Your task to perform on an android device: uninstall "LinkedIn" Image 0: 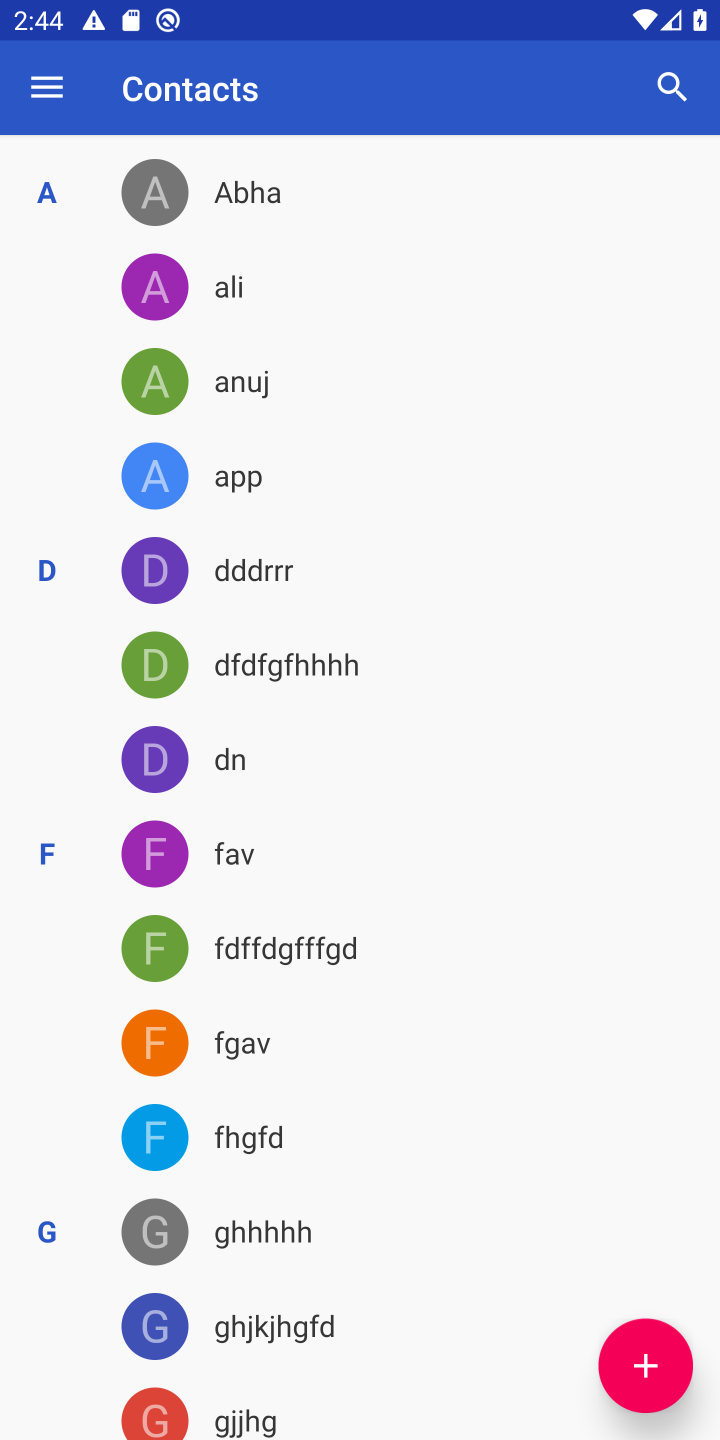
Step 0: press home button
Your task to perform on an android device: uninstall "LinkedIn" Image 1: 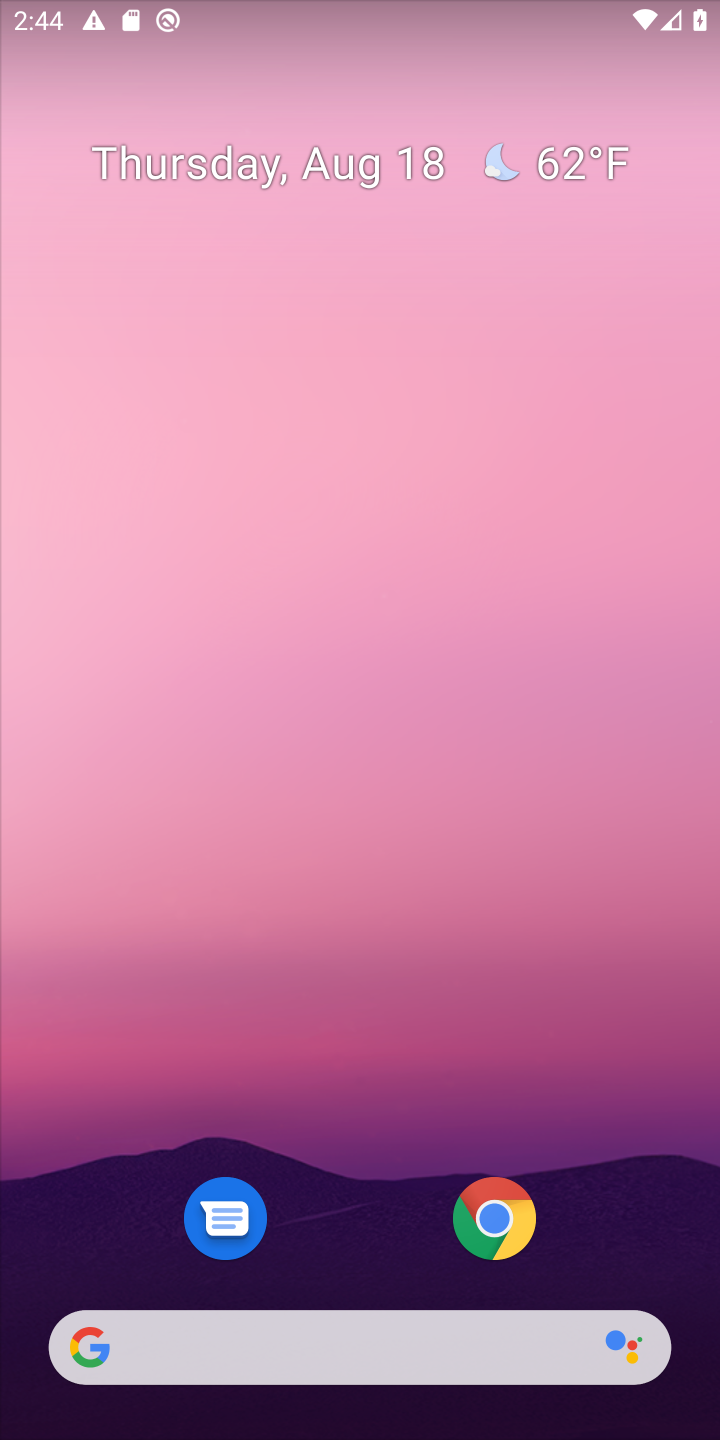
Step 1: drag from (334, 1209) to (356, 487)
Your task to perform on an android device: uninstall "LinkedIn" Image 2: 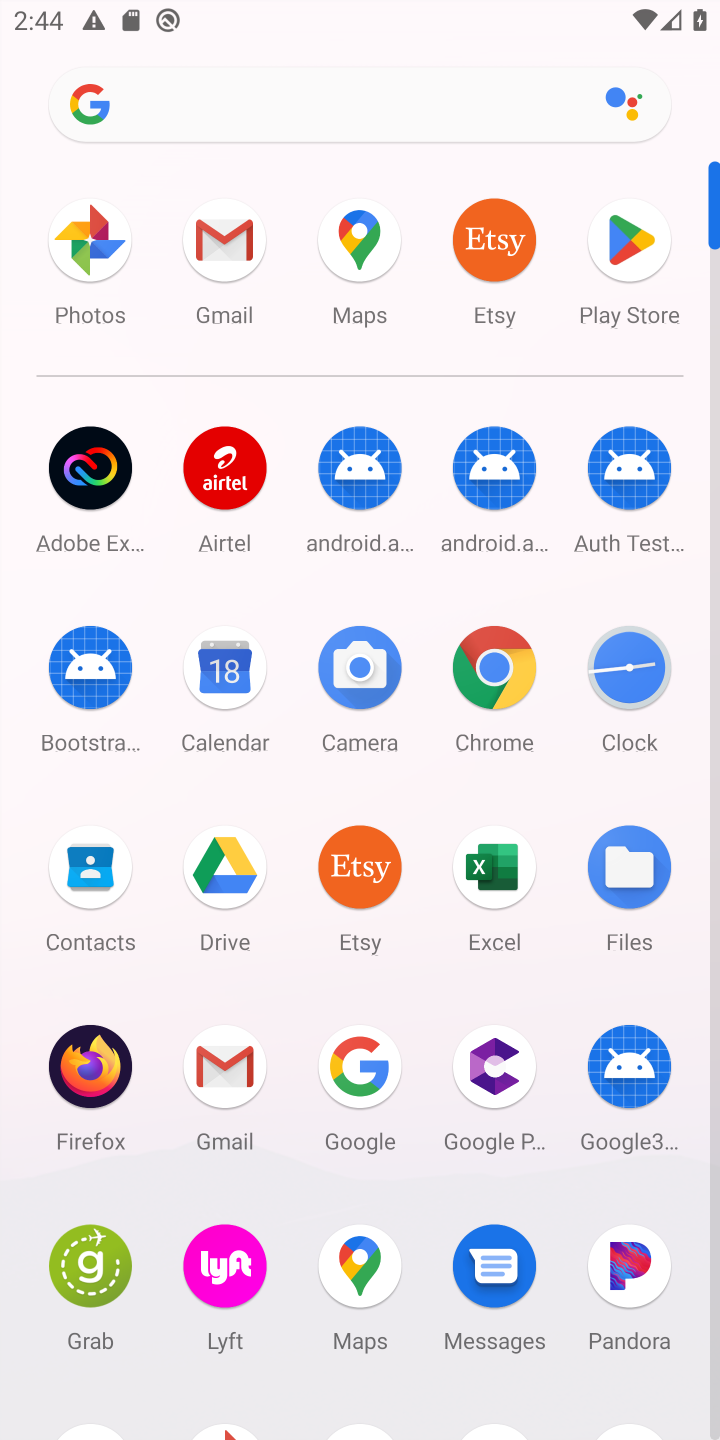
Step 2: click (611, 245)
Your task to perform on an android device: uninstall "LinkedIn" Image 3: 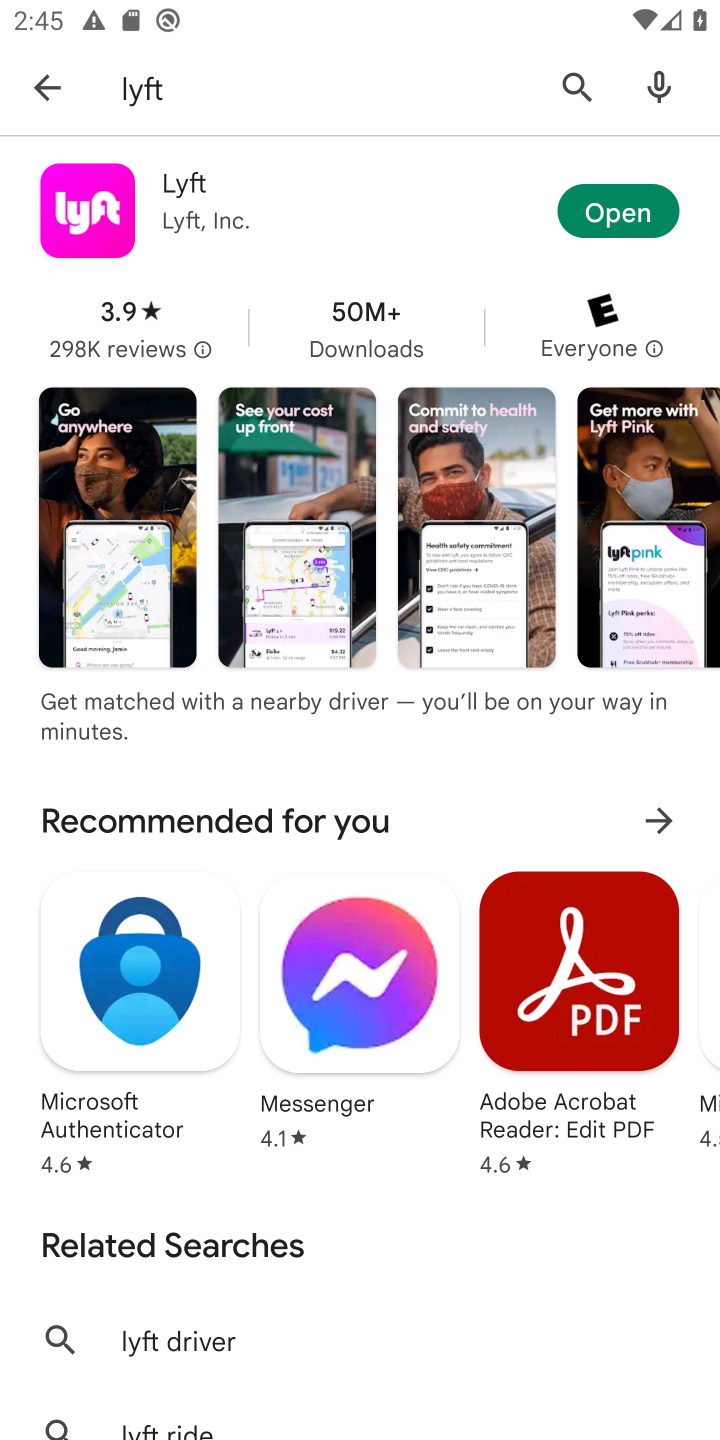
Step 3: click (567, 95)
Your task to perform on an android device: uninstall "LinkedIn" Image 4: 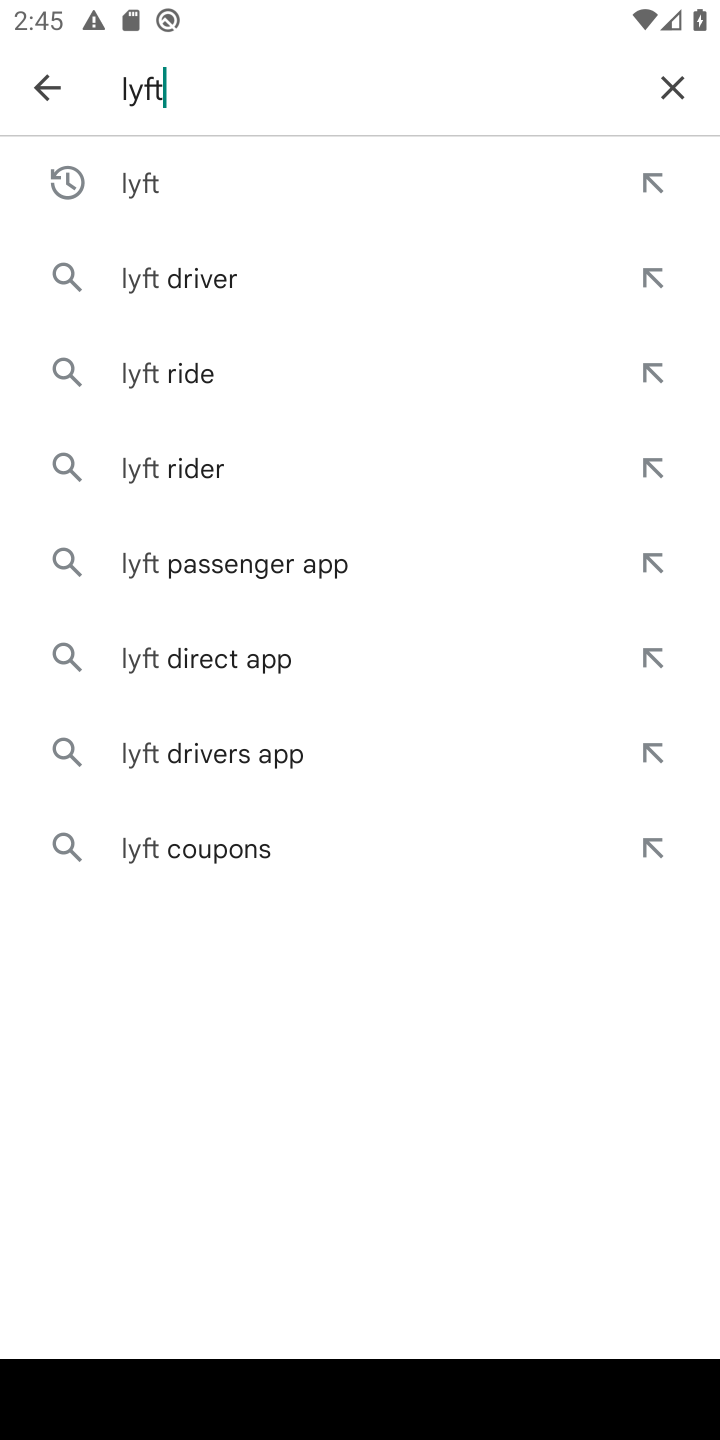
Step 4: click (662, 81)
Your task to perform on an android device: uninstall "LinkedIn" Image 5: 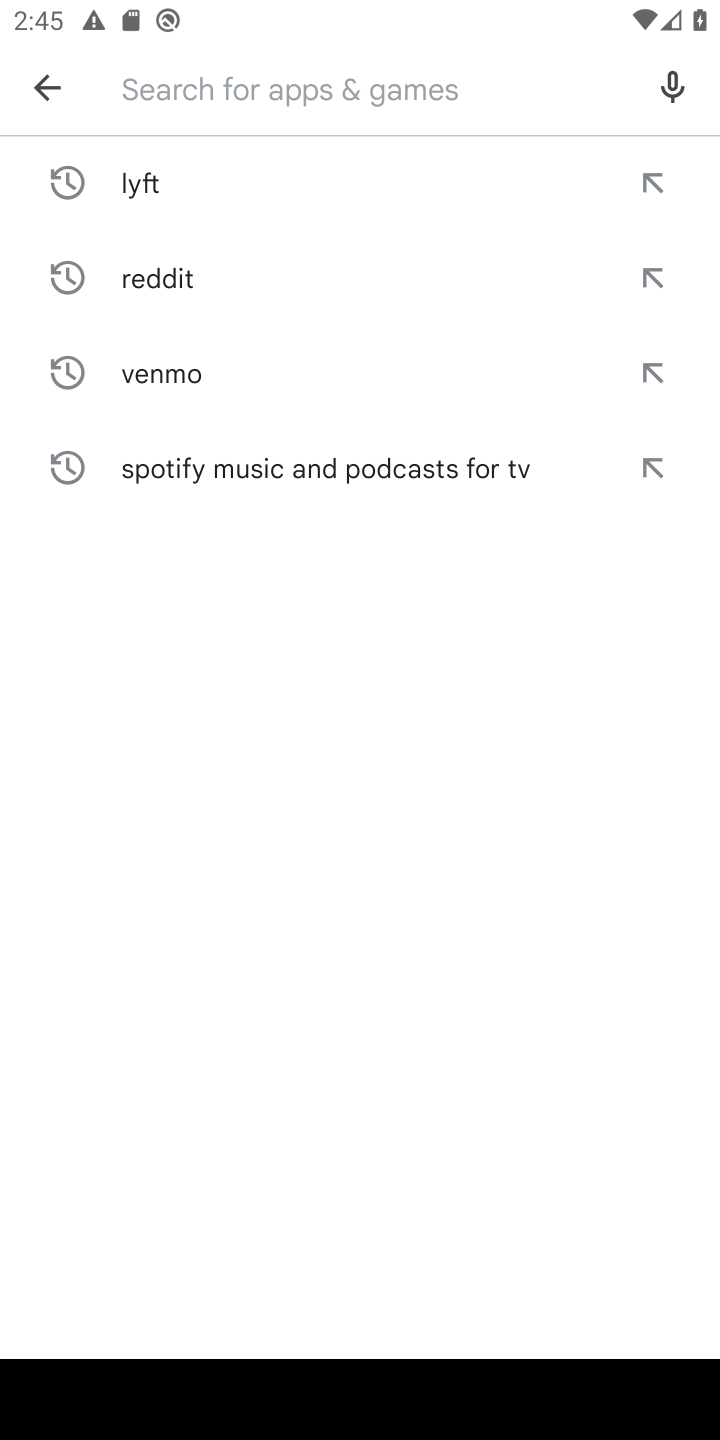
Step 5: type "LinkedIn"
Your task to perform on an android device: uninstall "LinkedIn" Image 6: 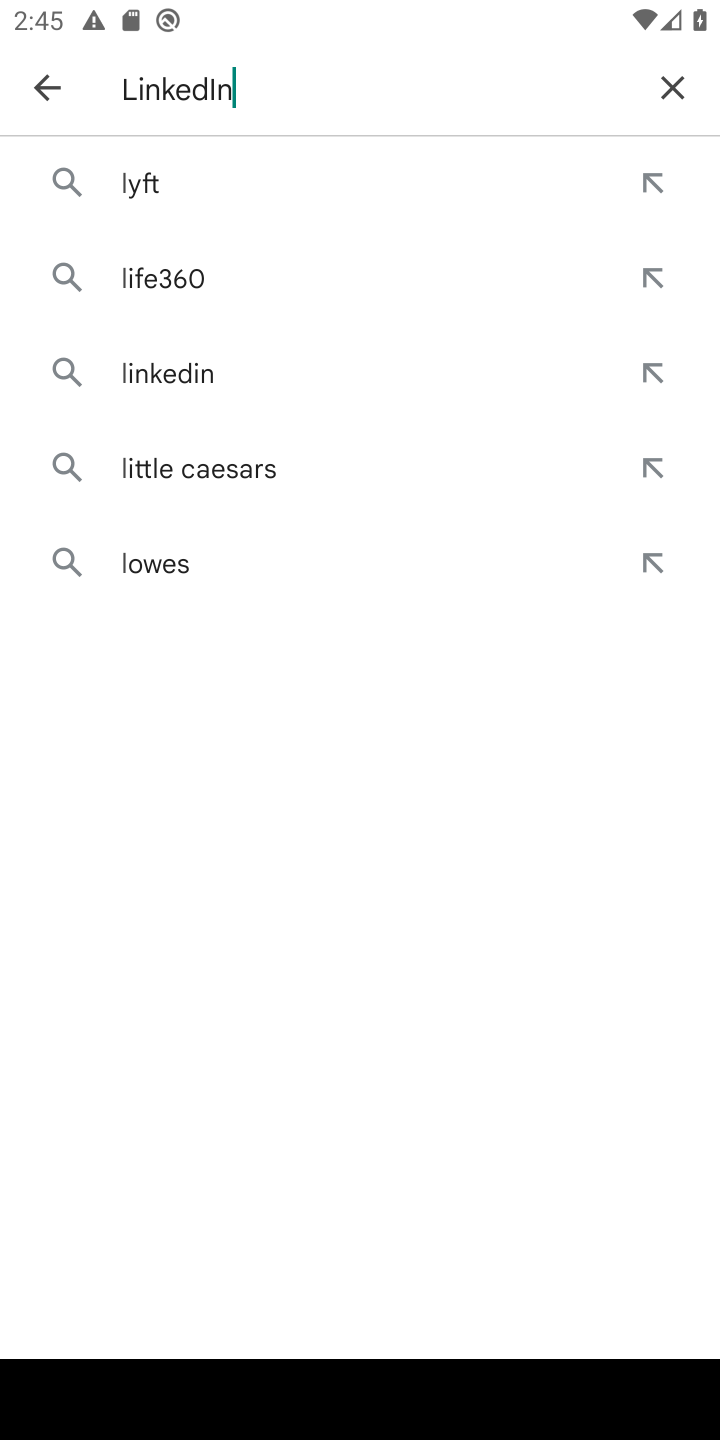
Step 6: type ""
Your task to perform on an android device: uninstall "LinkedIn" Image 7: 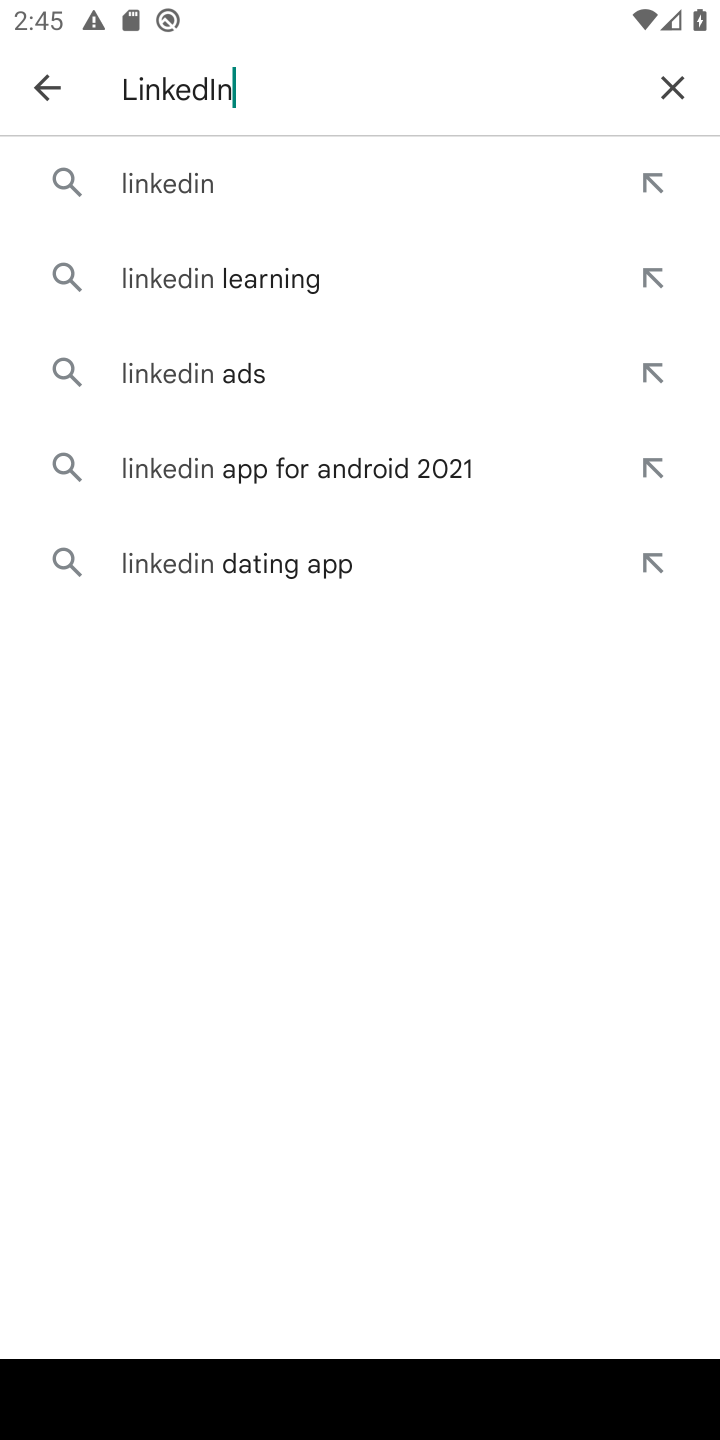
Step 7: click (167, 179)
Your task to perform on an android device: uninstall "LinkedIn" Image 8: 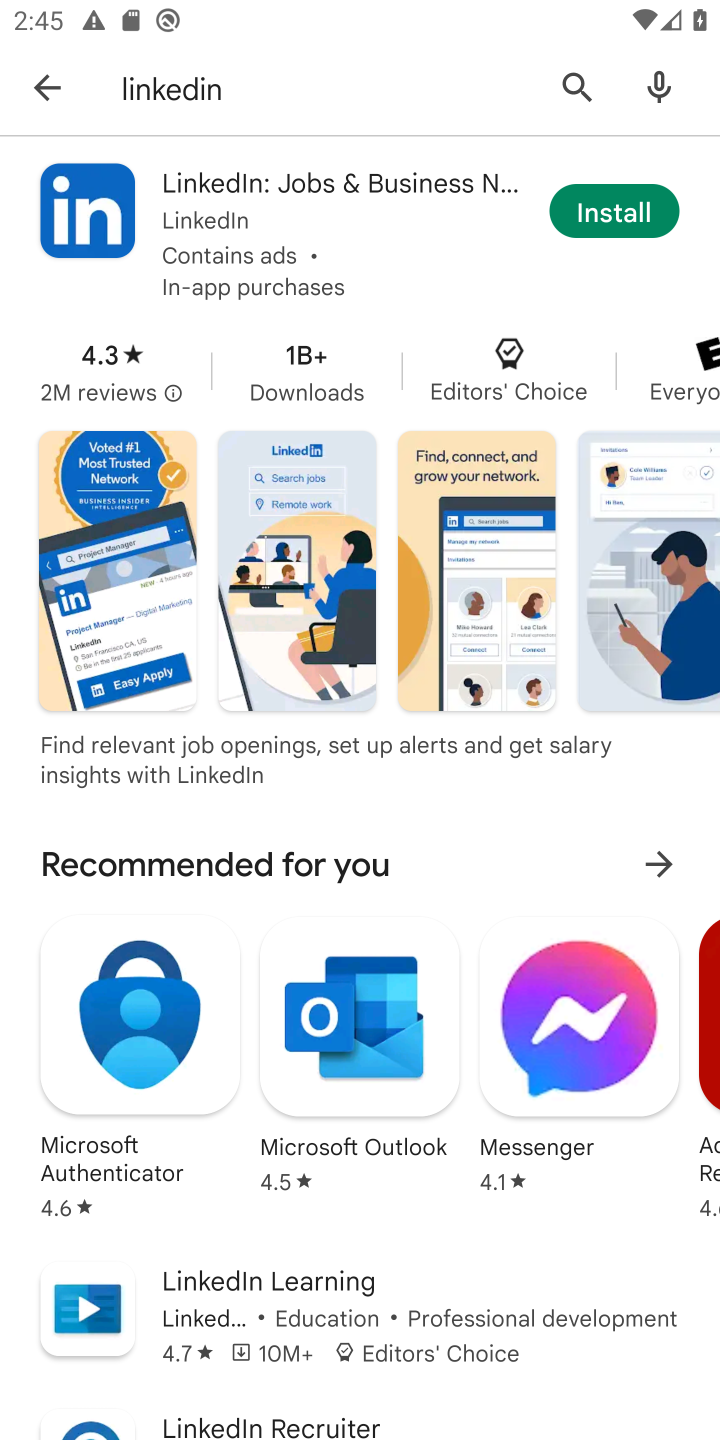
Step 8: task complete